Your task to perform on an android device: Add "logitech g pro" to the cart on walmart Image 0: 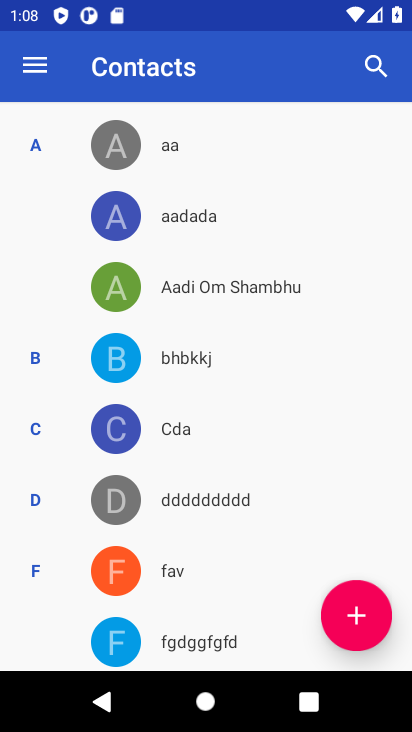
Step 0: press home button
Your task to perform on an android device: Add "logitech g pro" to the cart on walmart Image 1: 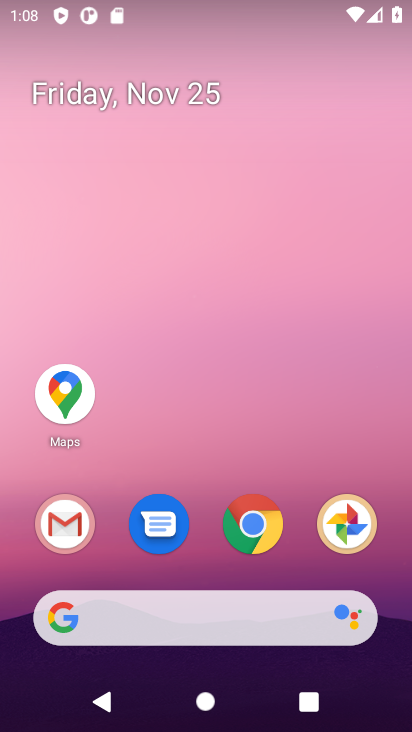
Step 1: click (248, 533)
Your task to perform on an android device: Add "logitech g pro" to the cart on walmart Image 2: 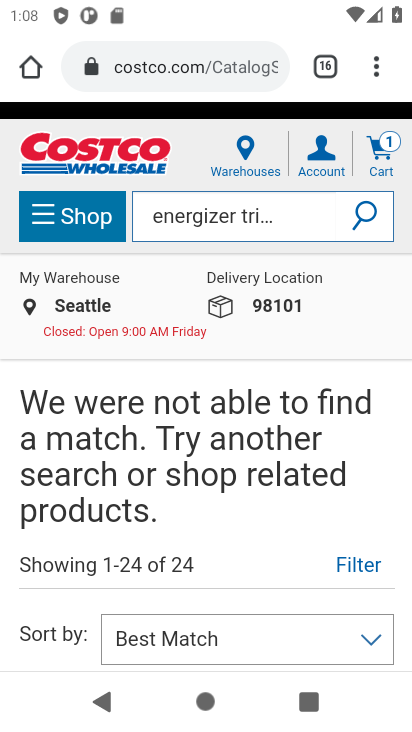
Step 2: click (148, 67)
Your task to perform on an android device: Add "logitech g pro" to the cart on walmart Image 3: 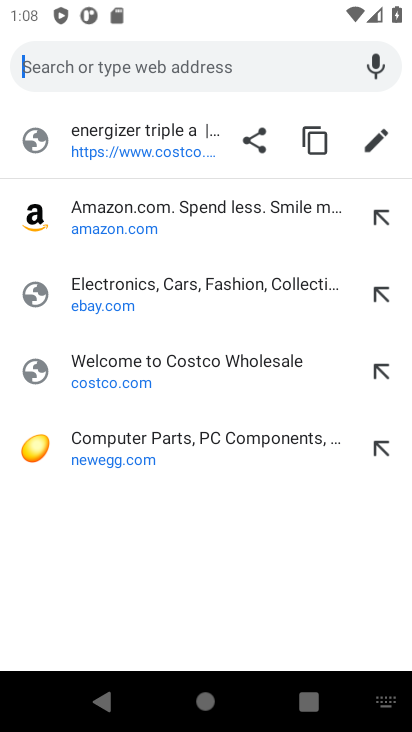
Step 3: type "walmart.com"
Your task to perform on an android device: Add "logitech g pro" to the cart on walmart Image 4: 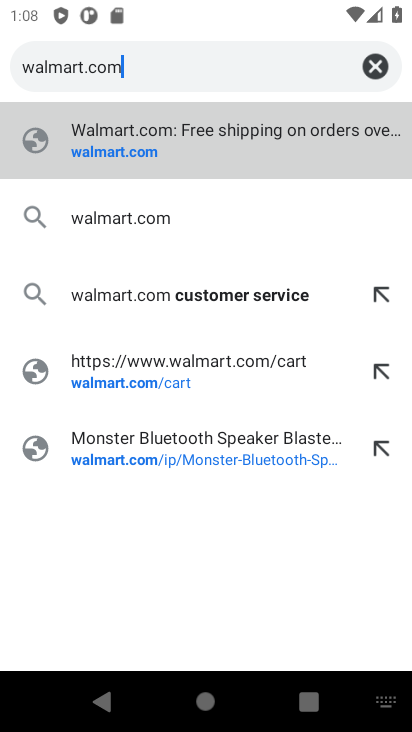
Step 4: click (100, 151)
Your task to perform on an android device: Add "logitech g pro" to the cart on walmart Image 5: 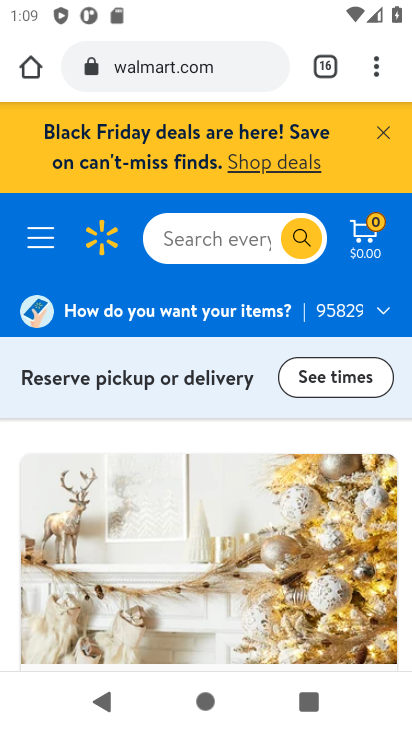
Step 5: click (205, 246)
Your task to perform on an android device: Add "logitech g pro" to the cart on walmart Image 6: 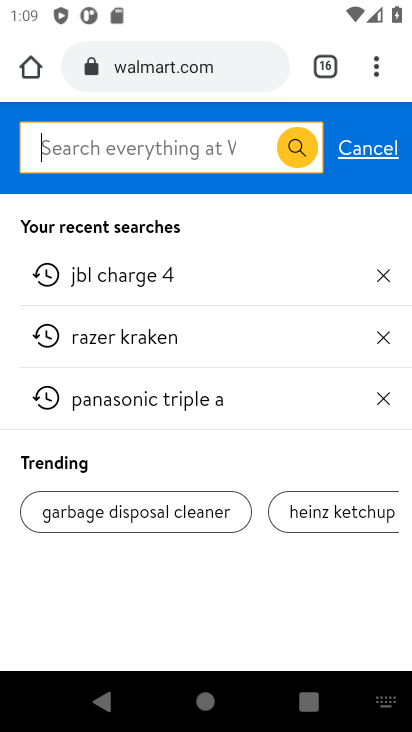
Step 6: type "logitech g pro"
Your task to perform on an android device: Add "logitech g pro" to the cart on walmart Image 7: 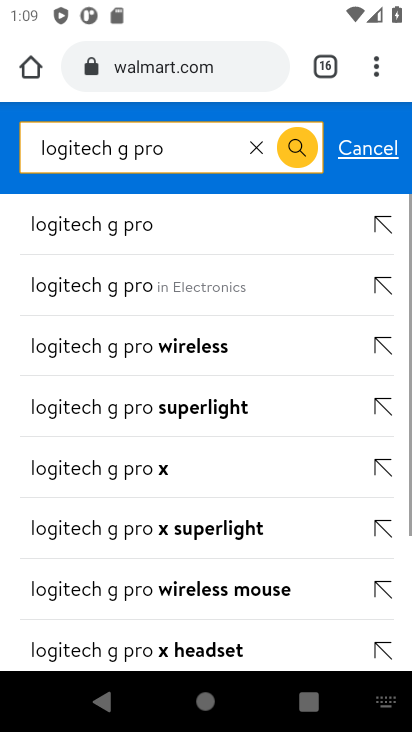
Step 7: click (102, 235)
Your task to perform on an android device: Add "logitech g pro" to the cart on walmart Image 8: 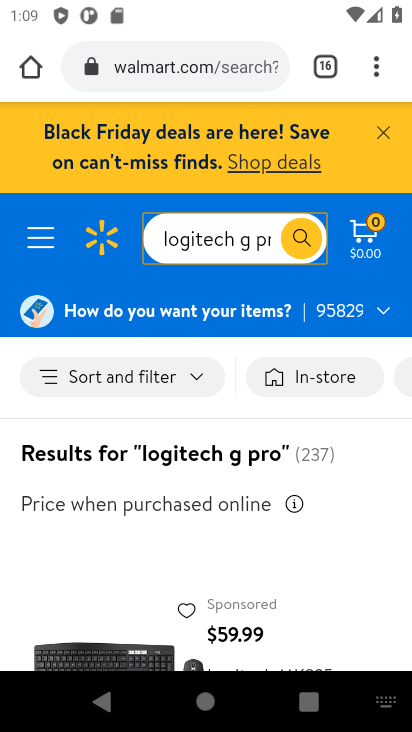
Step 8: drag from (157, 488) to (154, 239)
Your task to perform on an android device: Add "logitech g pro" to the cart on walmart Image 9: 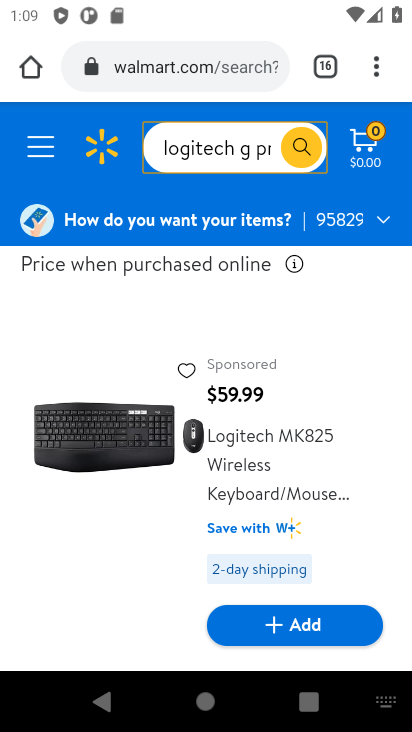
Step 9: drag from (110, 500) to (118, 271)
Your task to perform on an android device: Add "logitech g pro" to the cart on walmart Image 10: 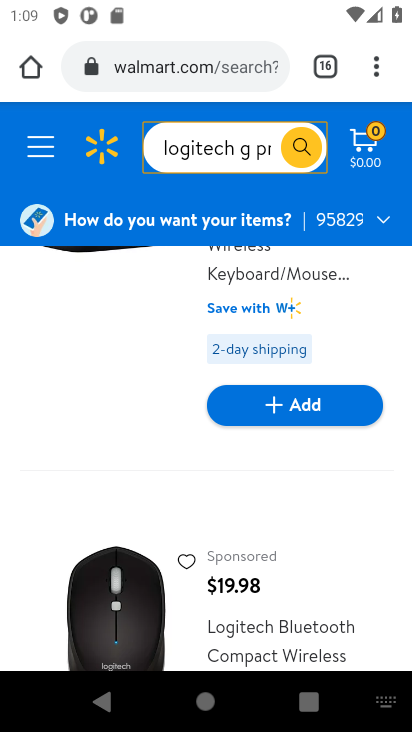
Step 10: drag from (115, 516) to (131, 244)
Your task to perform on an android device: Add "logitech g pro" to the cart on walmart Image 11: 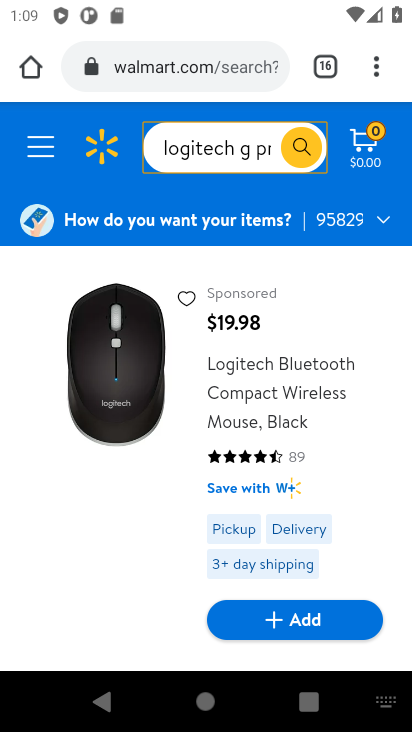
Step 11: drag from (159, 539) to (141, 230)
Your task to perform on an android device: Add "logitech g pro" to the cart on walmart Image 12: 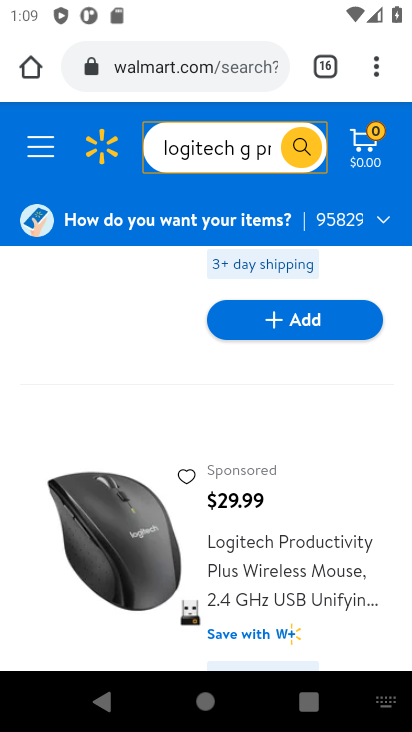
Step 12: drag from (90, 509) to (98, 245)
Your task to perform on an android device: Add "logitech g pro" to the cart on walmart Image 13: 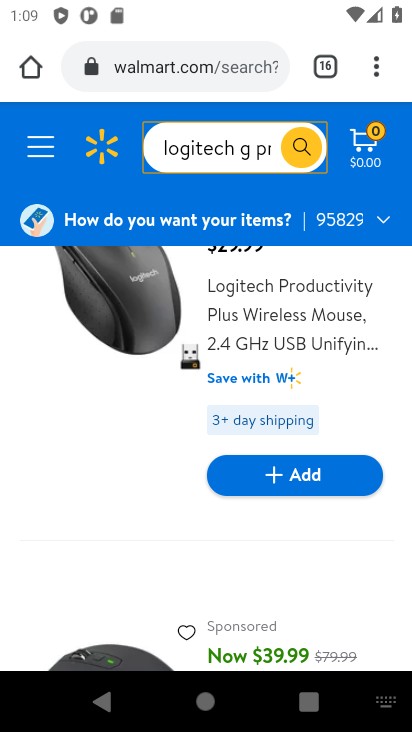
Step 13: drag from (63, 522) to (77, 280)
Your task to perform on an android device: Add "logitech g pro" to the cart on walmart Image 14: 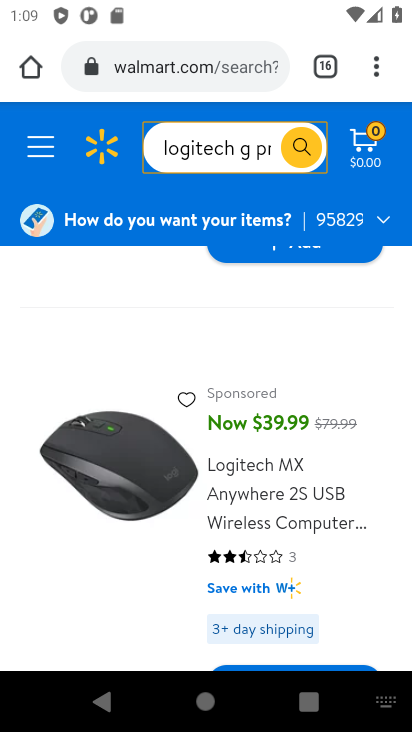
Step 14: drag from (79, 509) to (102, 276)
Your task to perform on an android device: Add "logitech g pro" to the cart on walmart Image 15: 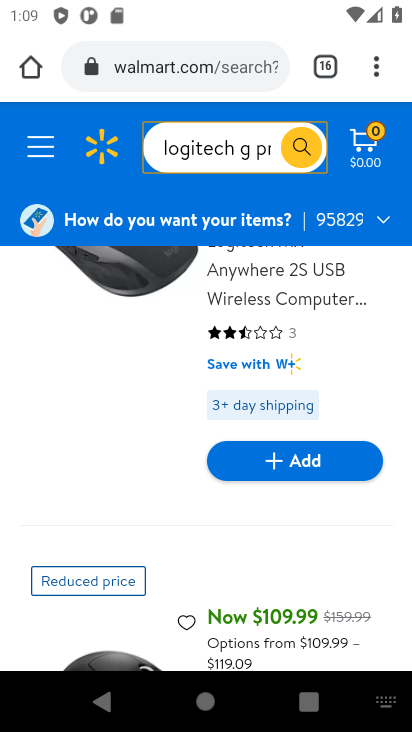
Step 15: drag from (104, 496) to (83, 232)
Your task to perform on an android device: Add "logitech g pro" to the cart on walmart Image 16: 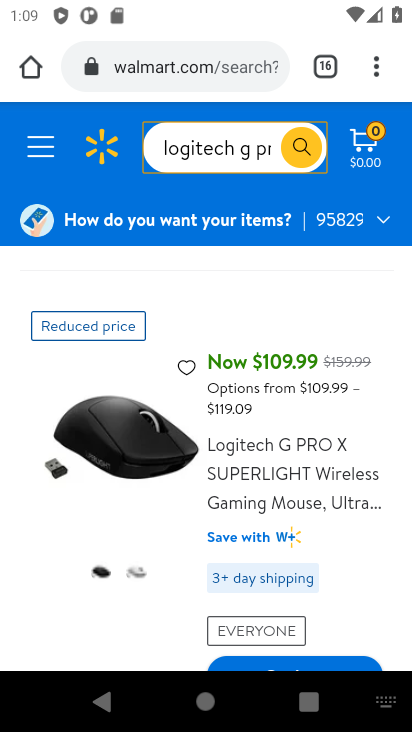
Step 16: drag from (87, 551) to (105, 392)
Your task to perform on an android device: Add "logitech g pro" to the cart on walmart Image 17: 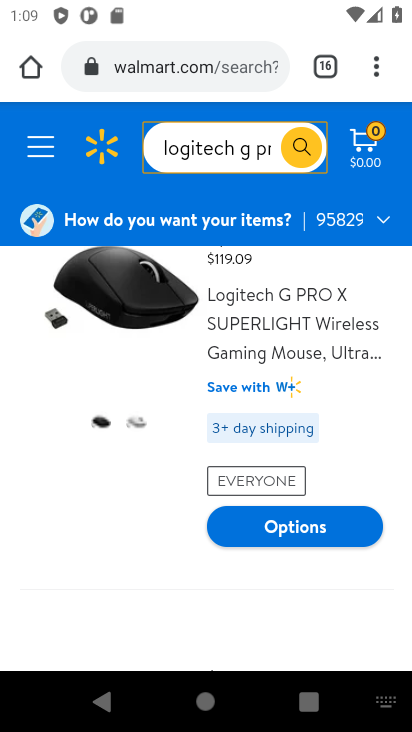
Step 17: click (139, 311)
Your task to perform on an android device: Add "logitech g pro" to the cart on walmart Image 18: 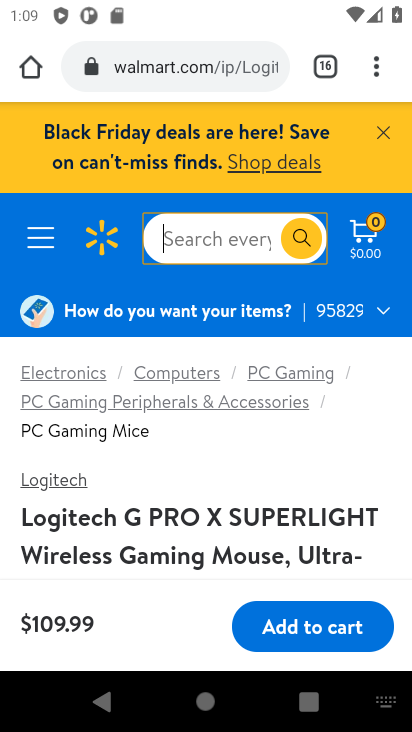
Step 18: click (315, 629)
Your task to perform on an android device: Add "logitech g pro" to the cart on walmart Image 19: 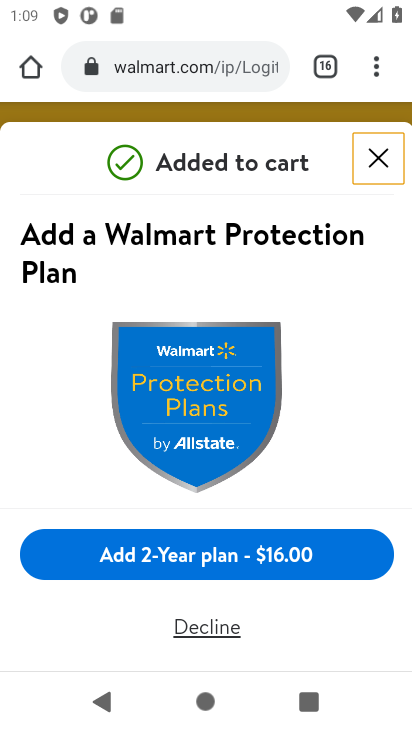
Step 19: task complete